Your task to perform on an android device: Open the stopwatch Image 0: 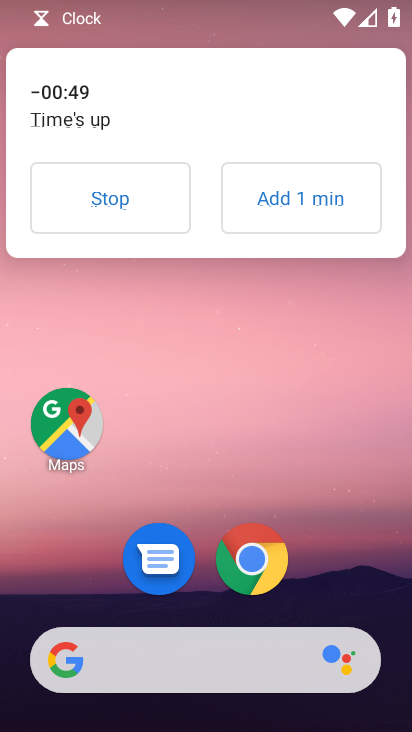
Step 0: press home button
Your task to perform on an android device: Open the stopwatch Image 1: 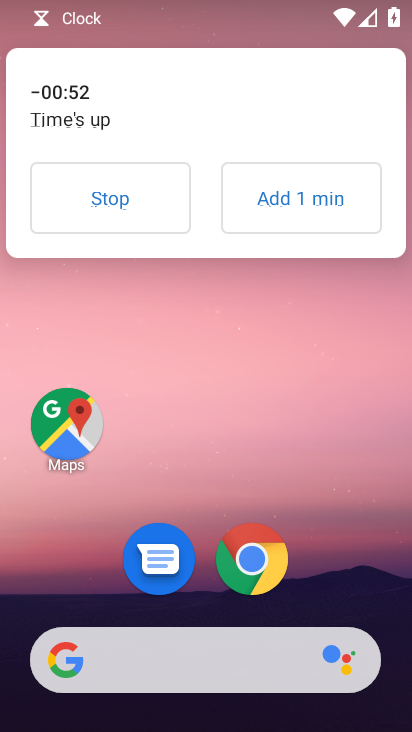
Step 1: click (172, 211)
Your task to perform on an android device: Open the stopwatch Image 2: 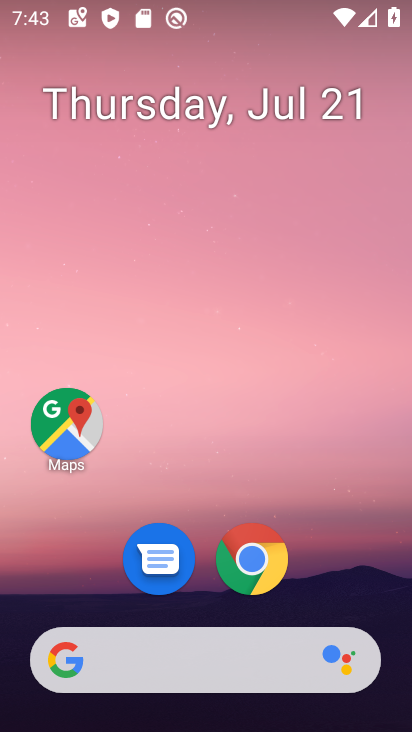
Step 2: drag from (205, 693) to (294, 68)
Your task to perform on an android device: Open the stopwatch Image 3: 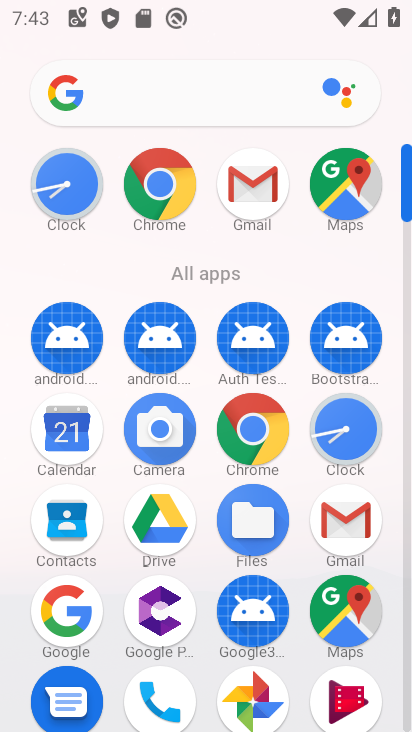
Step 3: click (346, 445)
Your task to perform on an android device: Open the stopwatch Image 4: 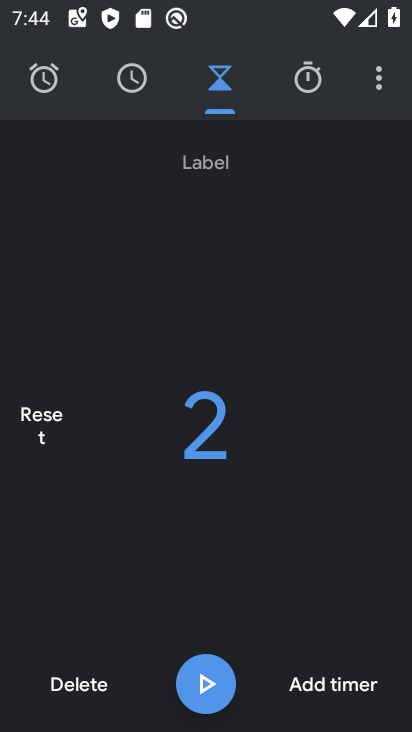
Step 4: click (319, 97)
Your task to perform on an android device: Open the stopwatch Image 5: 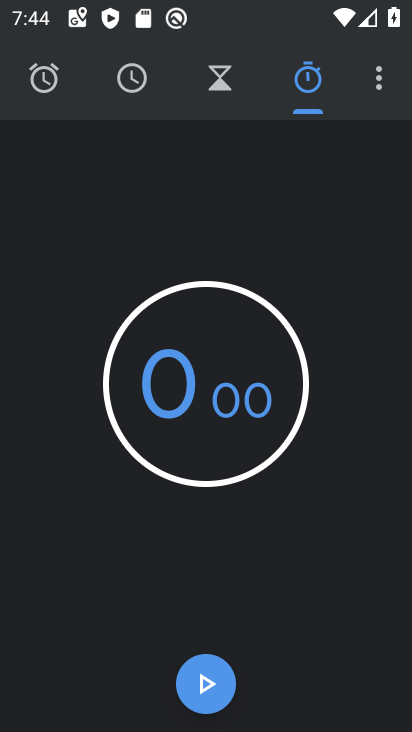
Step 5: task complete